Your task to perform on an android device: Go to battery settings Image 0: 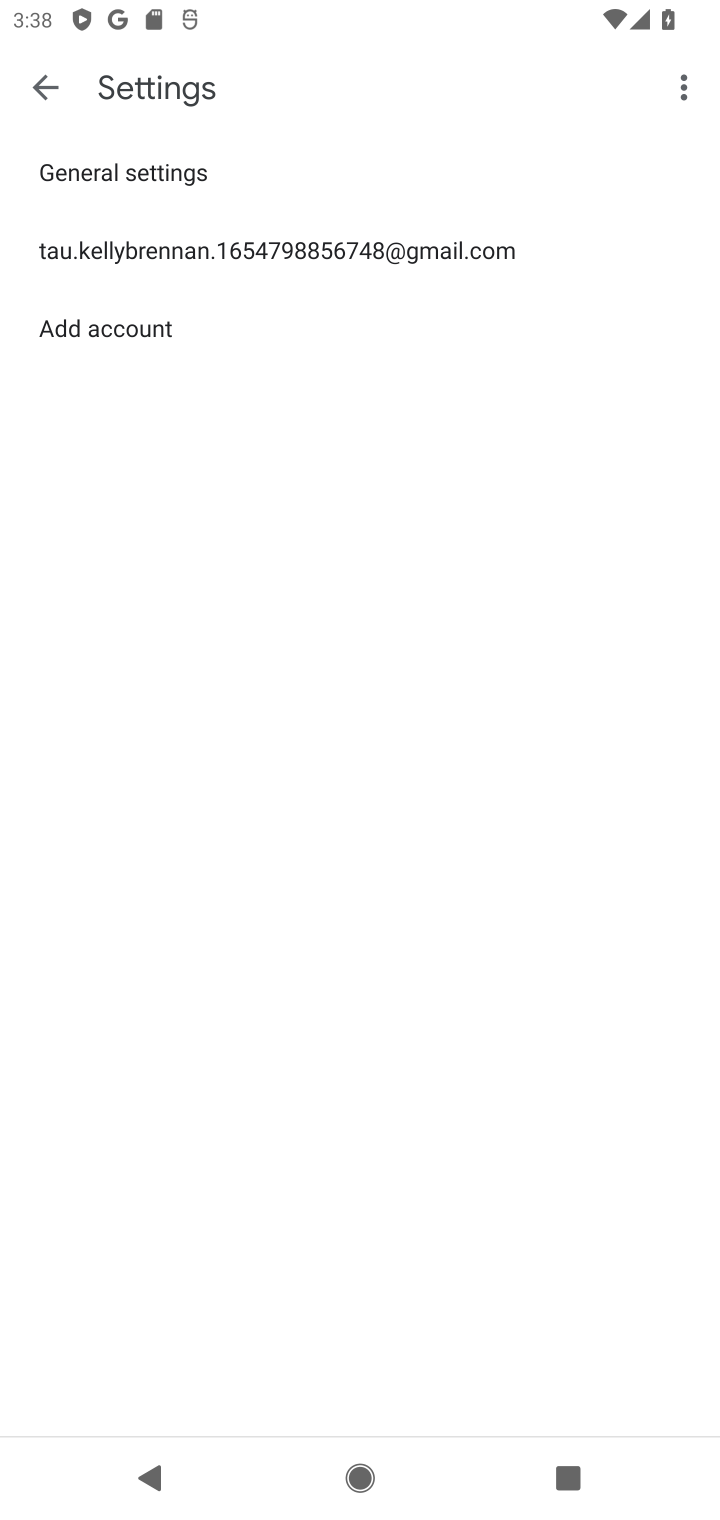
Step 0: press back button
Your task to perform on an android device: Go to battery settings Image 1: 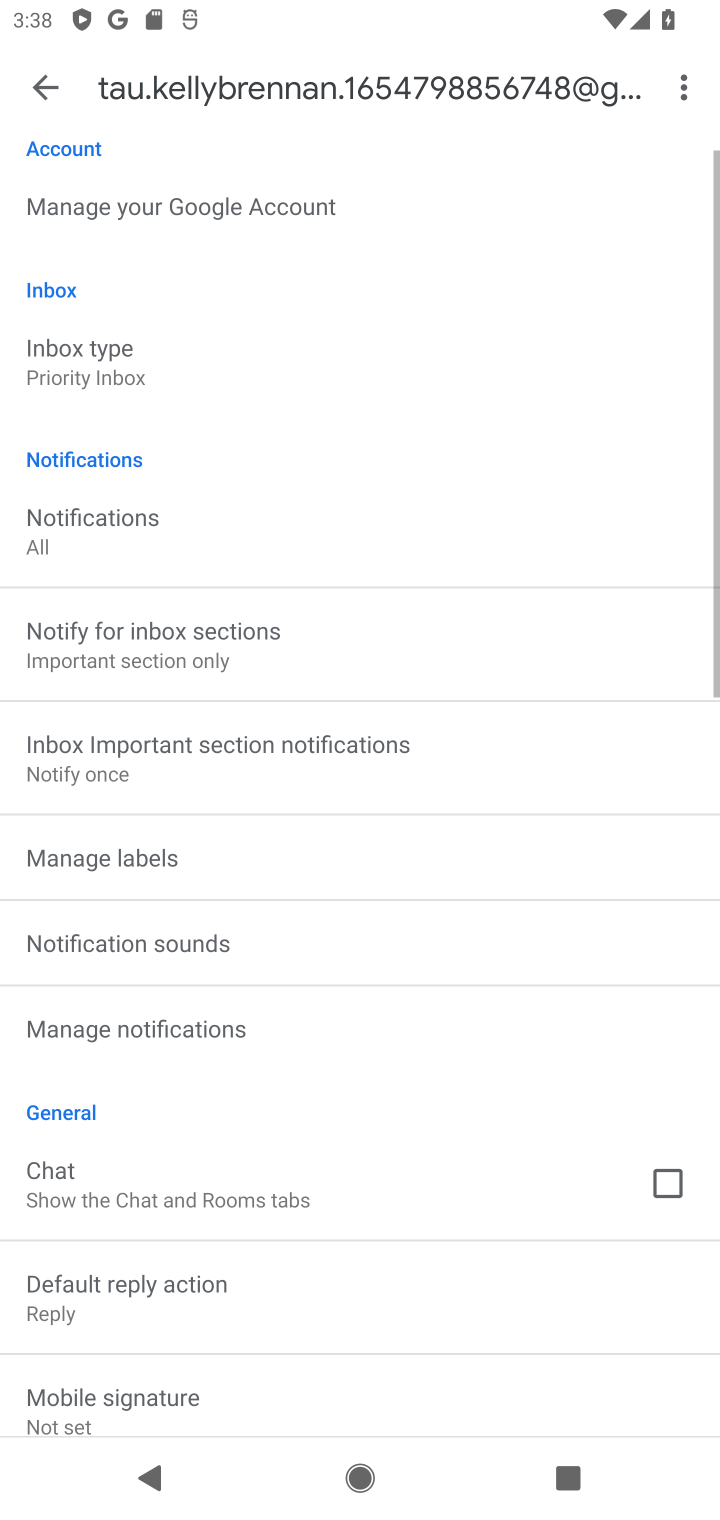
Step 1: press back button
Your task to perform on an android device: Go to battery settings Image 2: 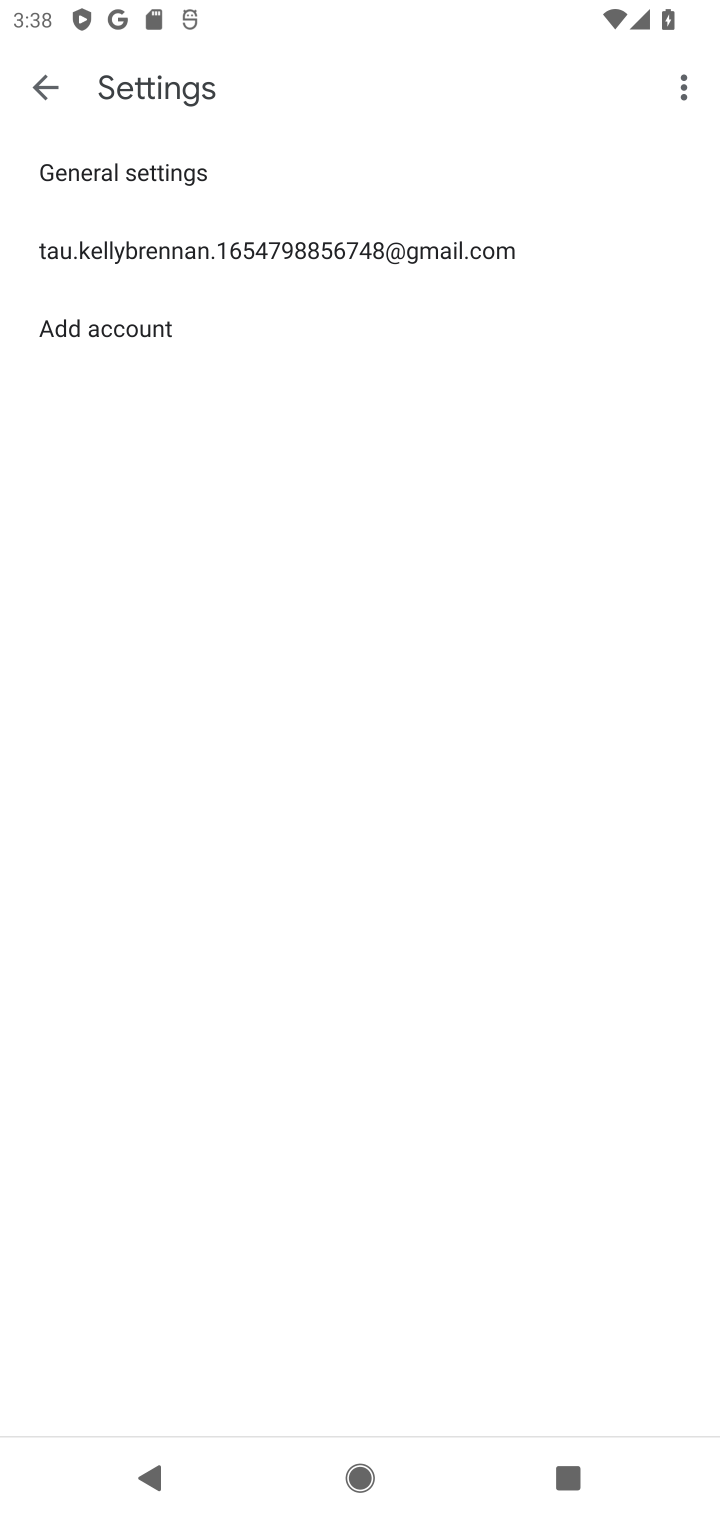
Step 2: press home button
Your task to perform on an android device: Go to battery settings Image 3: 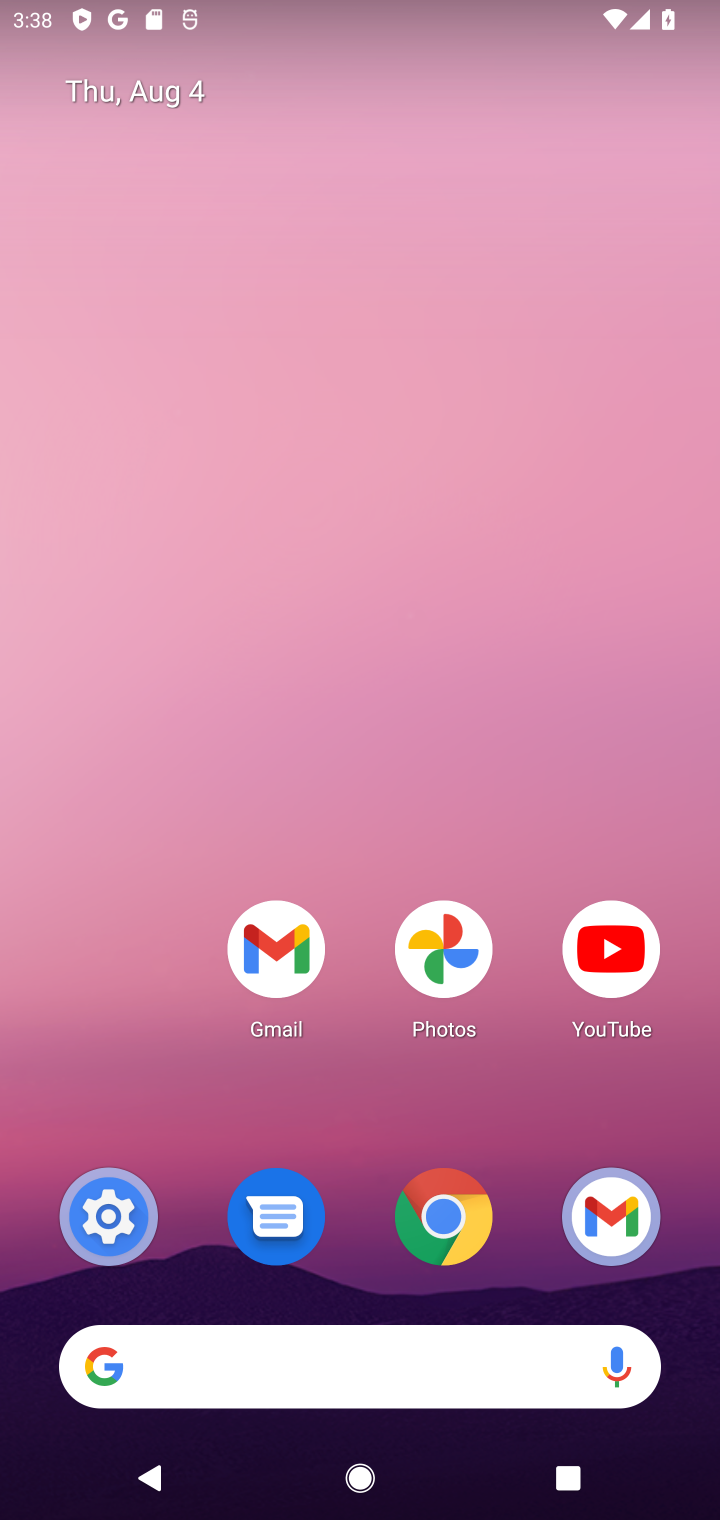
Step 3: drag from (157, 1084) to (318, 110)
Your task to perform on an android device: Go to battery settings Image 4: 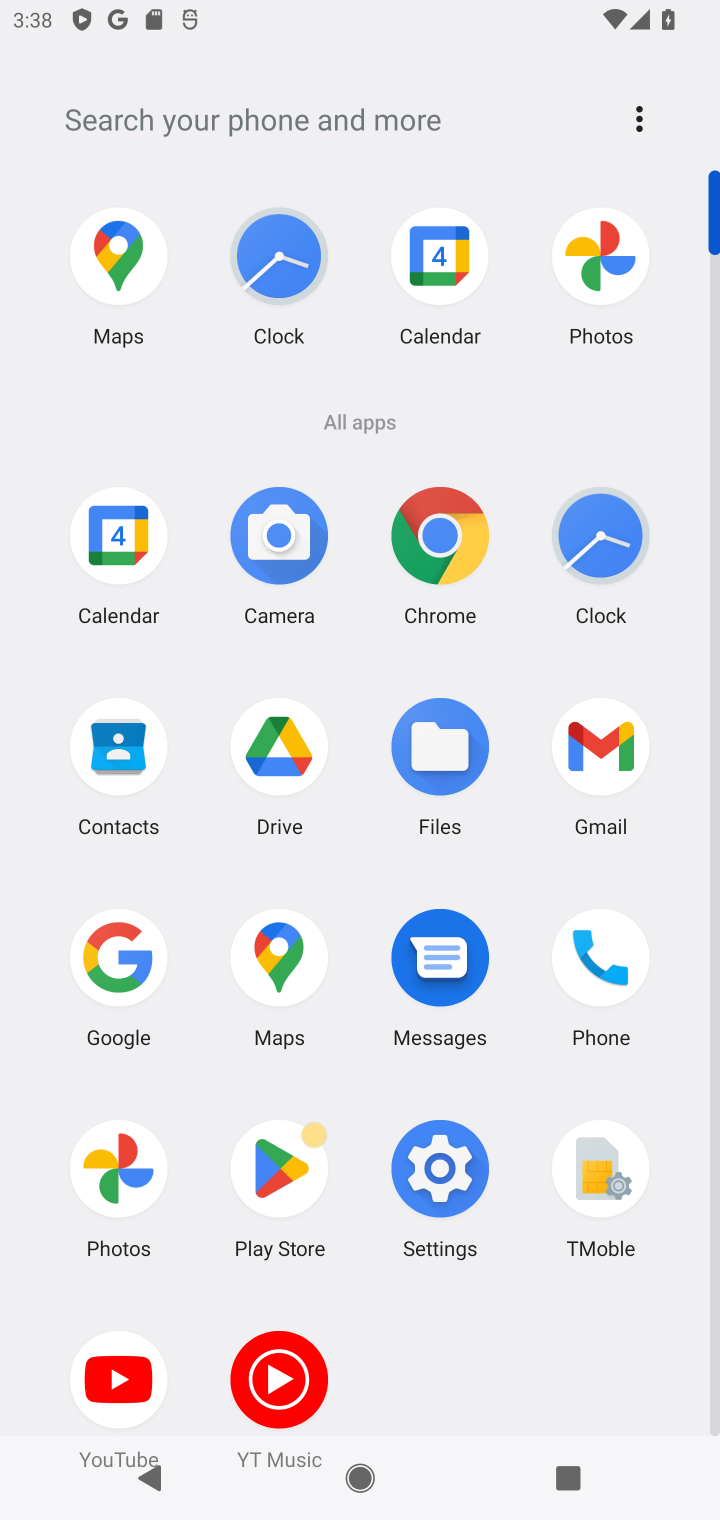
Step 4: click (438, 1174)
Your task to perform on an android device: Go to battery settings Image 5: 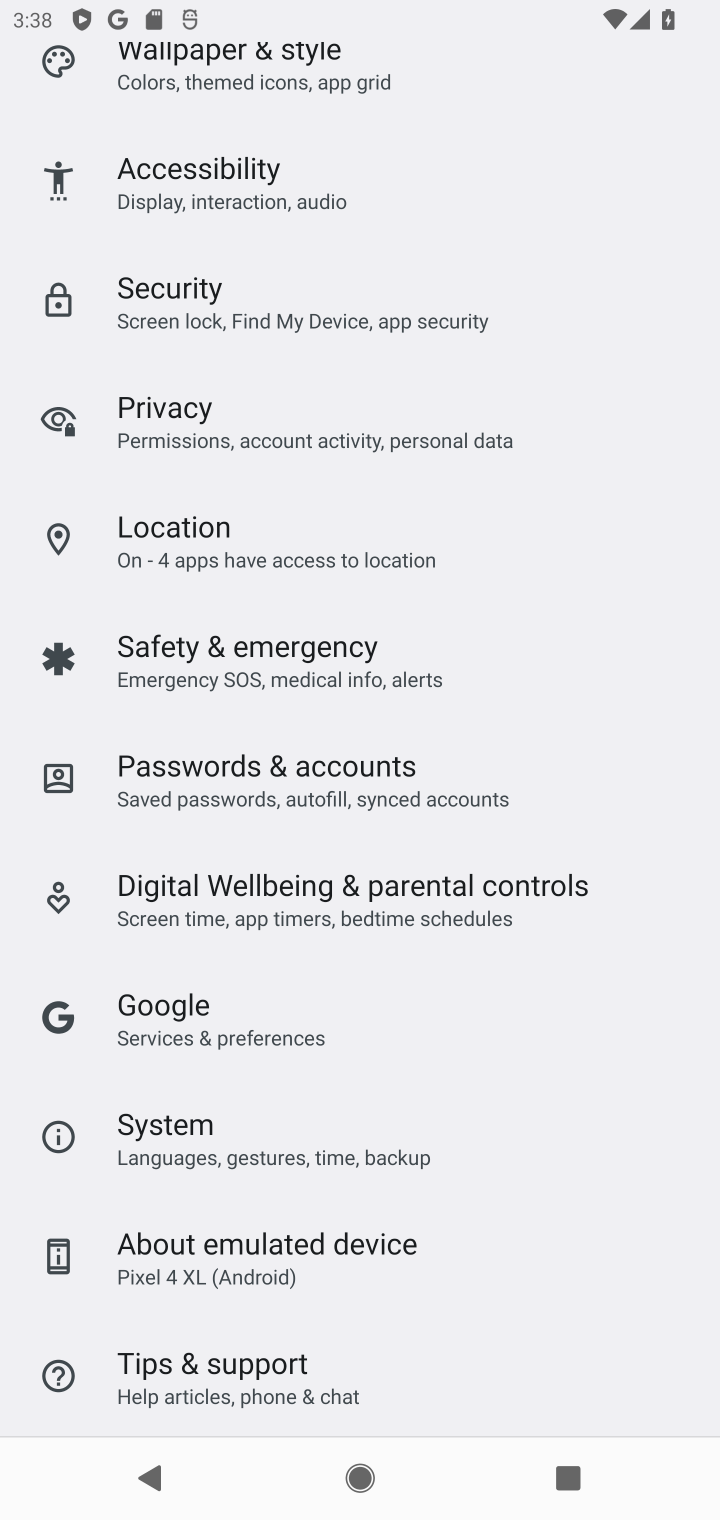
Step 5: drag from (350, 301) to (306, 1265)
Your task to perform on an android device: Go to battery settings Image 6: 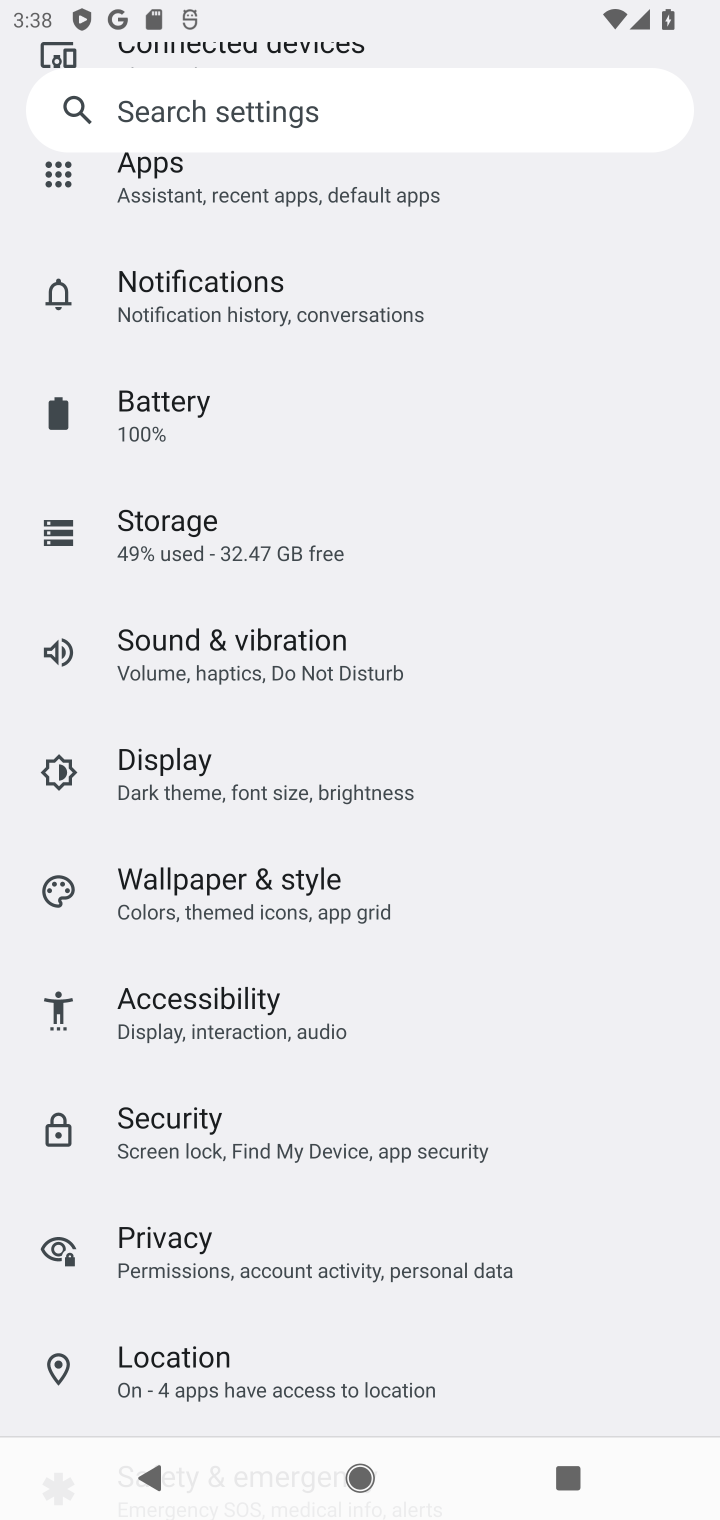
Step 6: click (231, 409)
Your task to perform on an android device: Go to battery settings Image 7: 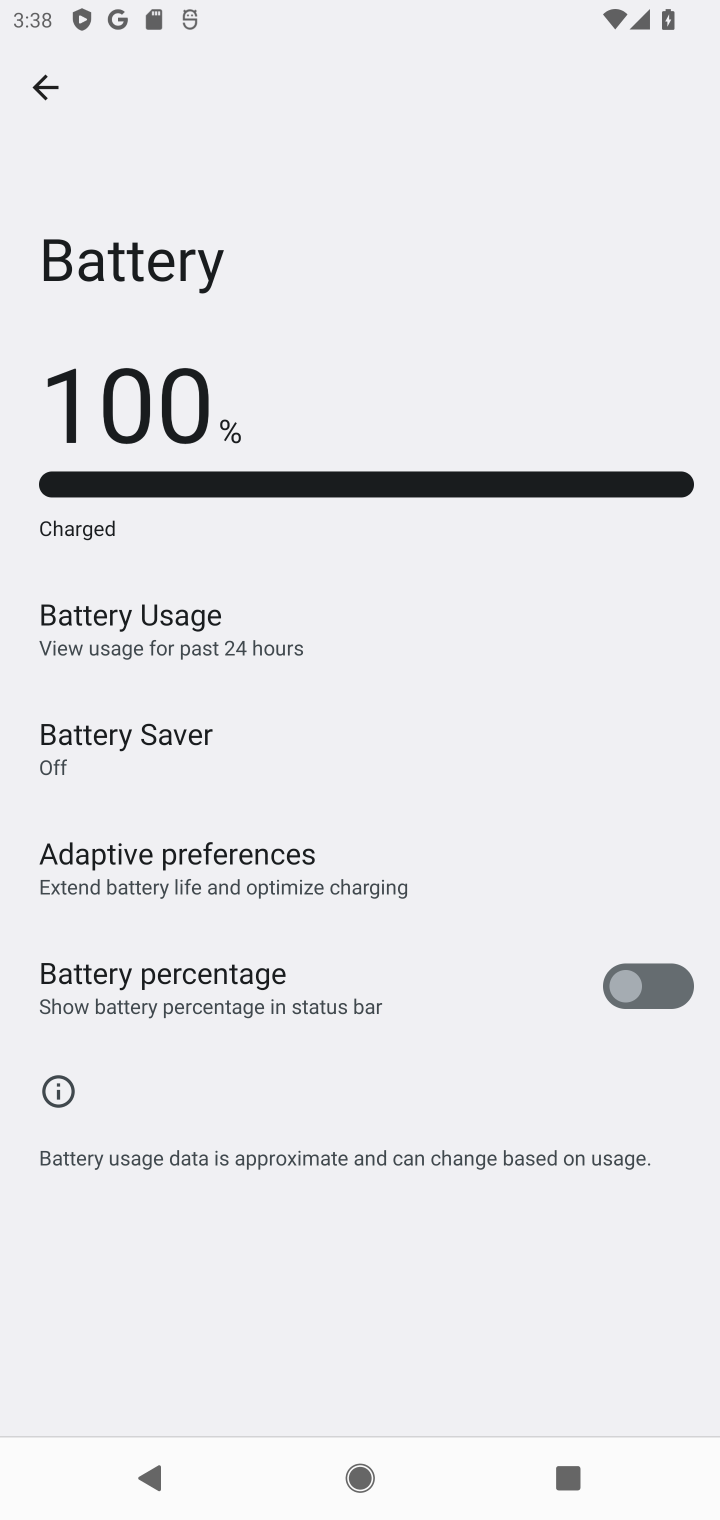
Step 7: task complete